Your task to perform on an android device: turn off improve location accuracy Image 0: 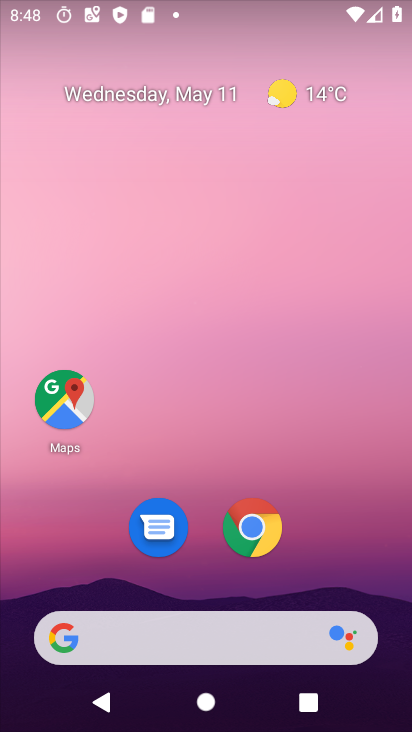
Step 0: drag from (229, 617) to (223, 7)
Your task to perform on an android device: turn off improve location accuracy Image 1: 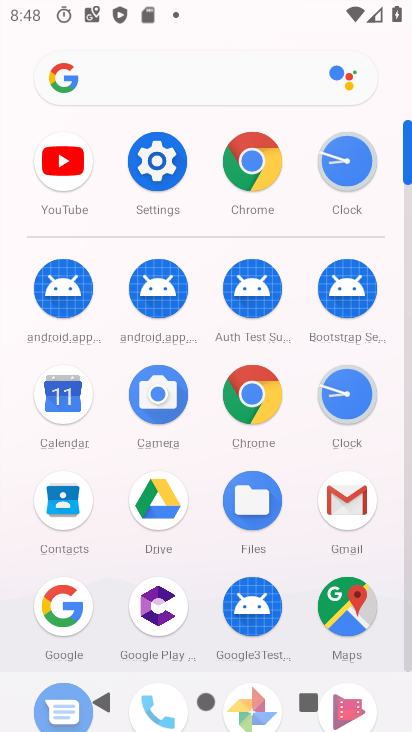
Step 1: click (170, 172)
Your task to perform on an android device: turn off improve location accuracy Image 2: 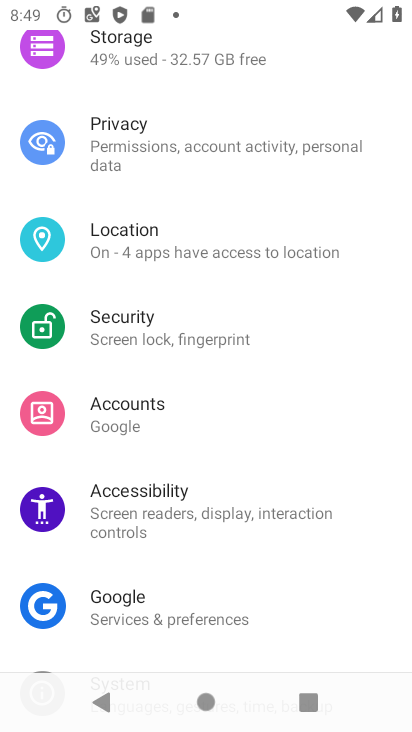
Step 2: drag from (173, 498) to (190, 234)
Your task to perform on an android device: turn off improve location accuracy Image 3: 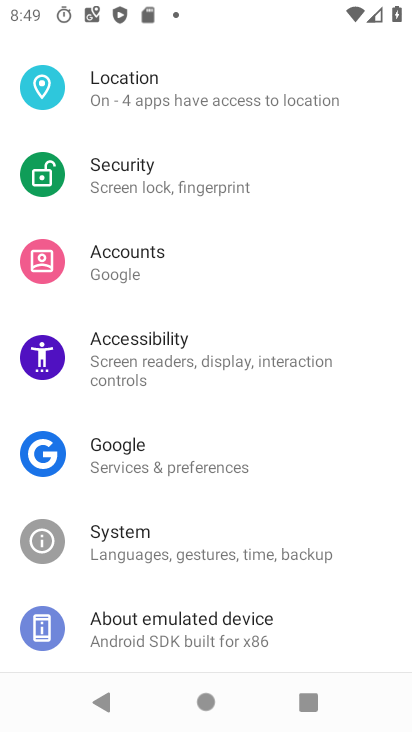
Step 3: drag from (197, 289) to (145, 728)
Your task to perform on an android device: turn off improve location accuracy Image 4: 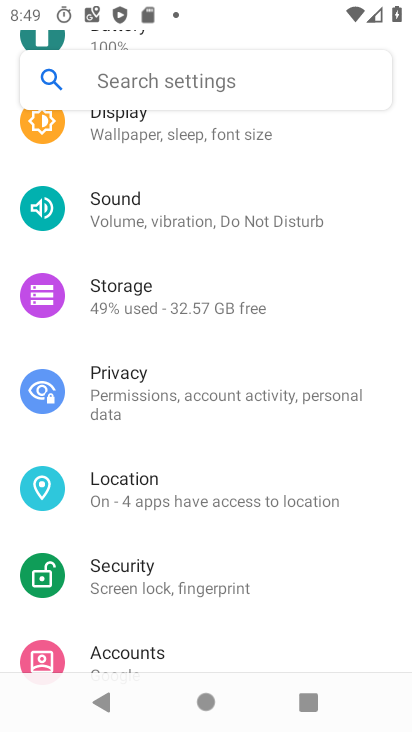
Step 4: click (181, 495)
Your task to perform on an android device: turn off improve location accuracy Image 5: 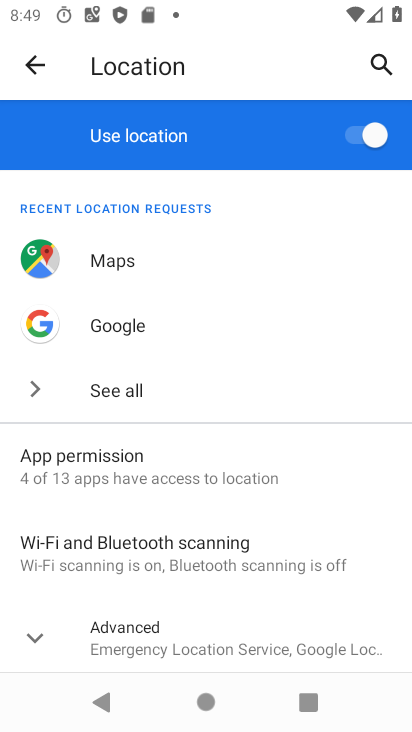
Step 5: click (169, 653)
Your task to perform on an android device: turn off improve location accuracy Image 6: 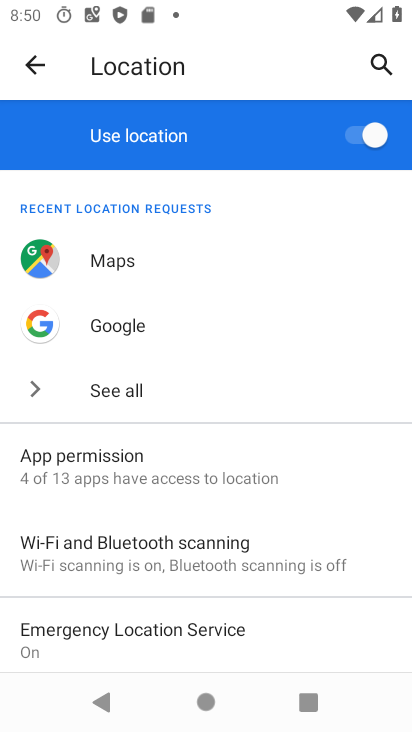
Step 6: drag from (218, 497) to (231, 69)
Your task to perform on an android device: turn off improve location accuracy Image 7: 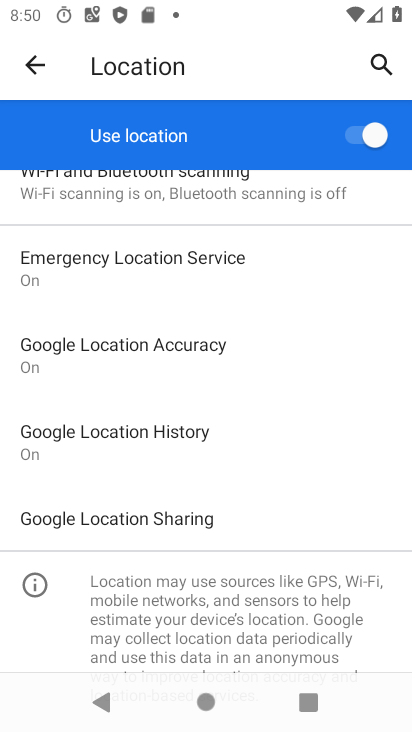
Step 7: click (218, 342)
Your task to perform on an android device: turn off improve location accuracy Image 8: 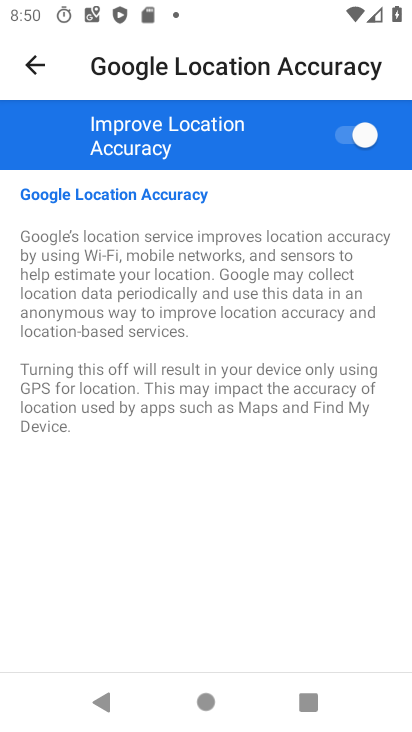
Step 8: click (340, 140)
Your task to perform on an android device: turn off improve location accuracy Image 9: 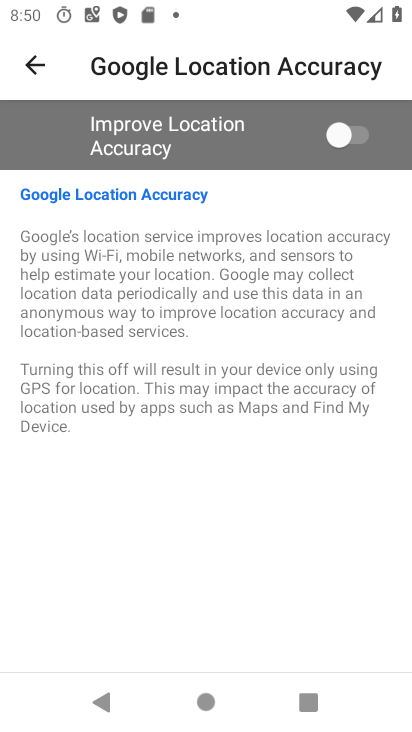
Step 9: task complete